Your task to perform on an android device: See recent photos Image 0: 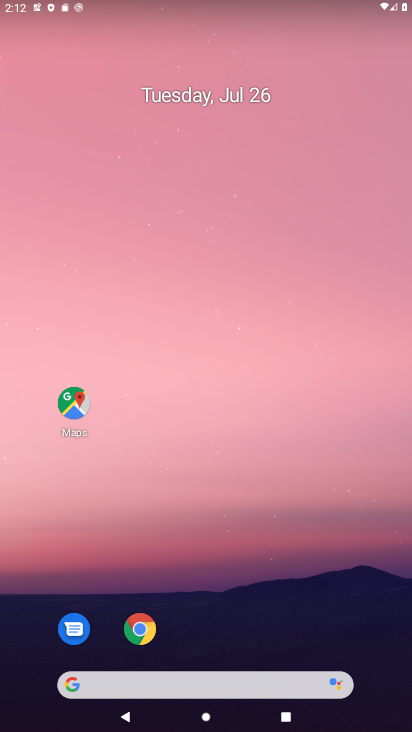
Step 0: click (195, 233)
Your task to perform on an android device: See recent photos Image 1: 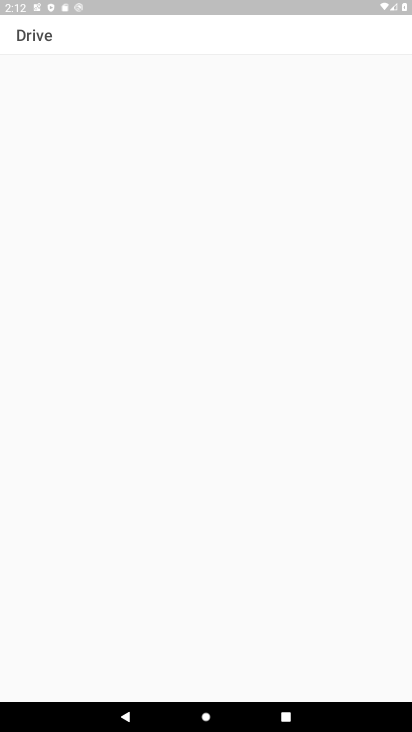
Step 1: press home button
Your task to perform on an android device: See recent photos Image 2: 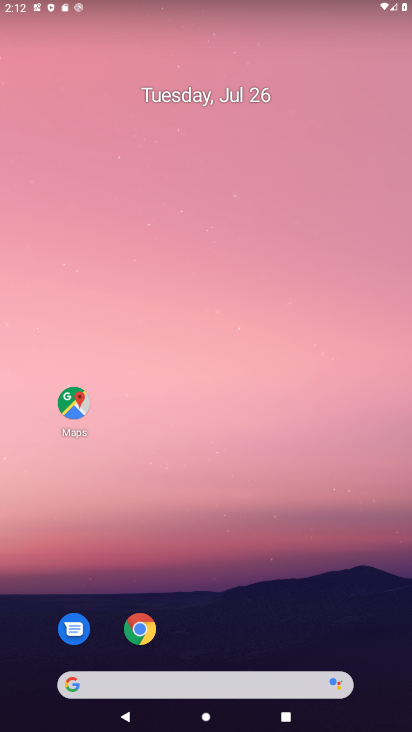
Step 2: drag from (221, 597) to (212, 234)
Your task to perform on an android device: See recent photos Image 3: 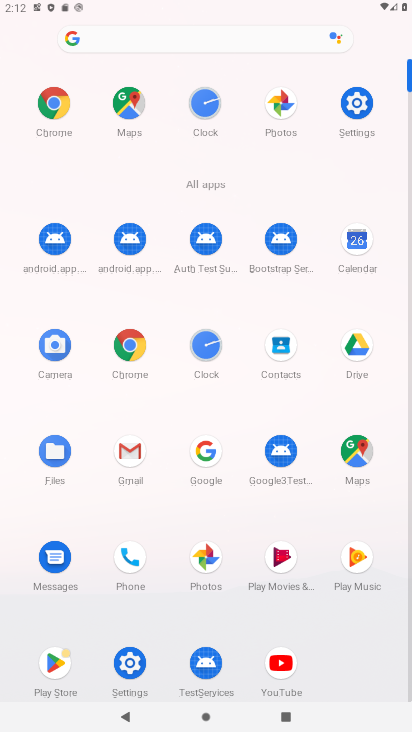
Step 3: click (212, 542)
Your task to perform on an android device: See recent photos Image 4: 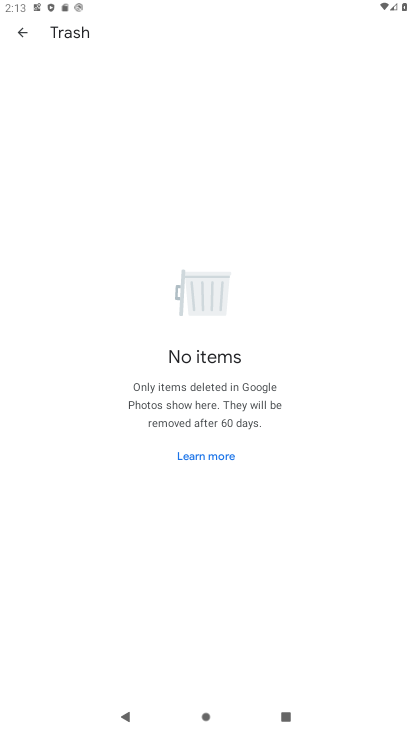
Step 4: click (13, 38)
Your task to perform on an android device: See recent photos Image 5: 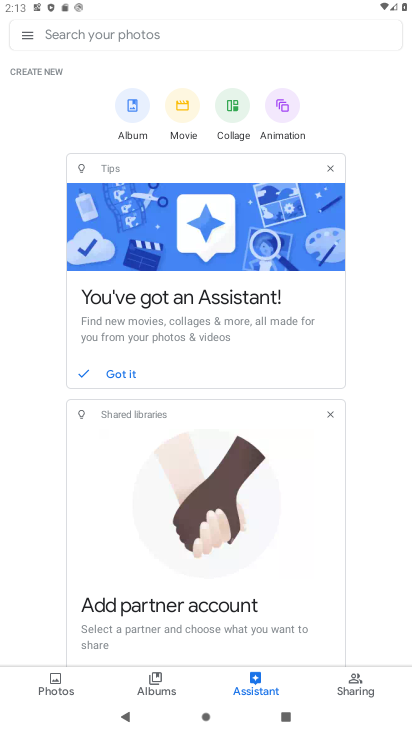
Step 5: click (65, 691)
Your task to perform on an android device: See recent photos Image 6: 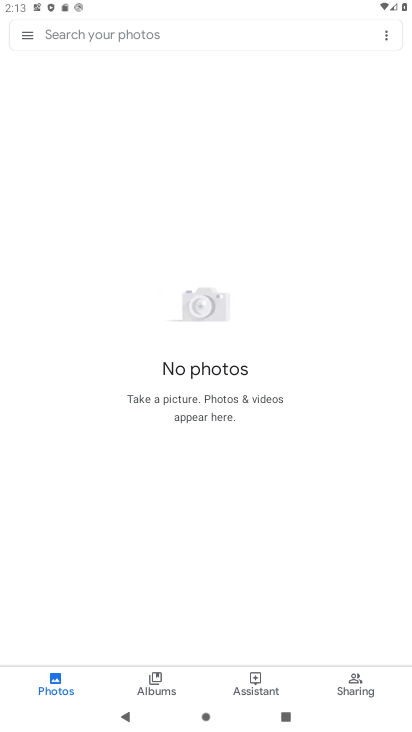
Step 6: task complete